Your task to perform on an android device: toggle sleep mode Image 0: 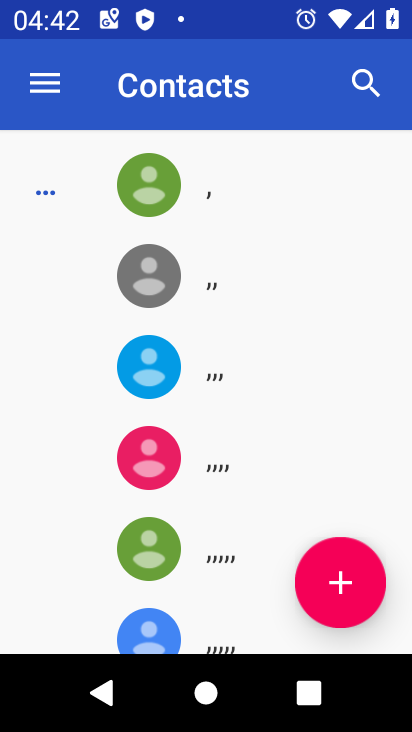
Step 0: press home button
Your task to perform on an android device: toggle sleep mode Image 1: 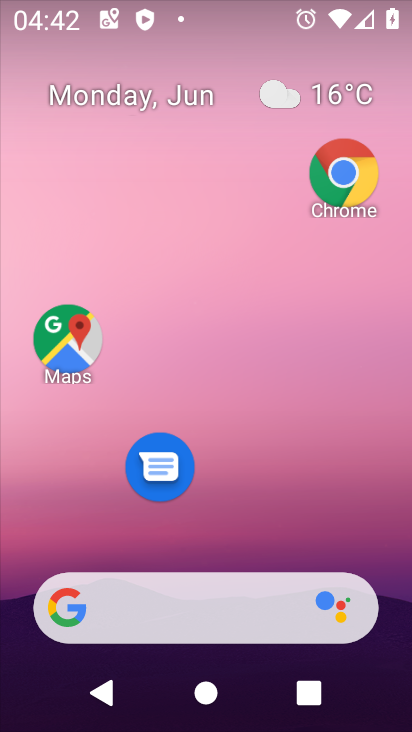
Step 1: drag from (209, 515) to (282, 15)
Your task to perform on an android device: toggle sleep mode Image 2: 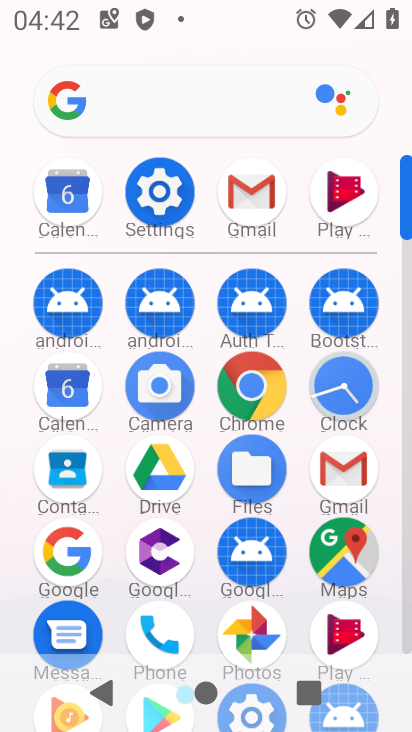
Step 2: click (171, 201)
Your task to perform on an android device: toggle sleep mode Image 3: 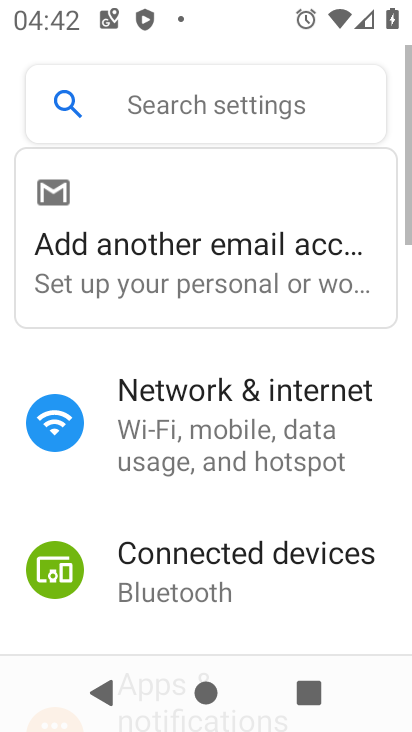
Step 3: click (206, 106)
Your task to perform on an android device: toggle sleep mode Image 4: 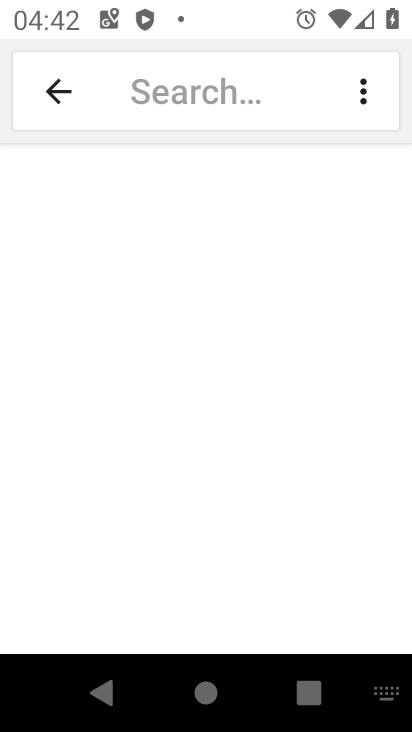
Step 4: type "sleep mode"
Your task to perform on an android device: toggle sleep mode Image 5: 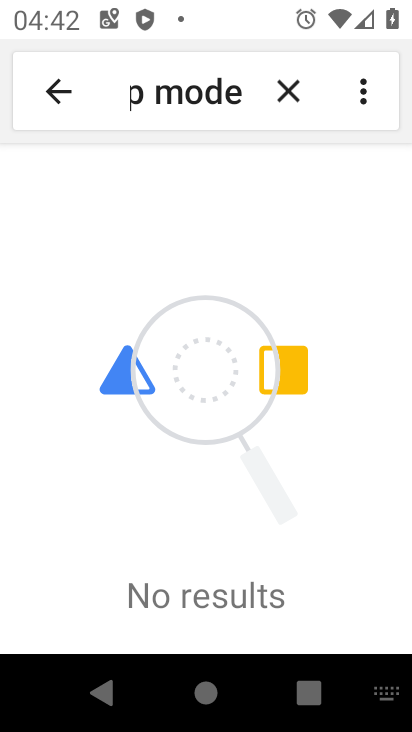
Step 5: task complete